Your task to perform on an android device: Is it going to rain this weekend? Image 0: 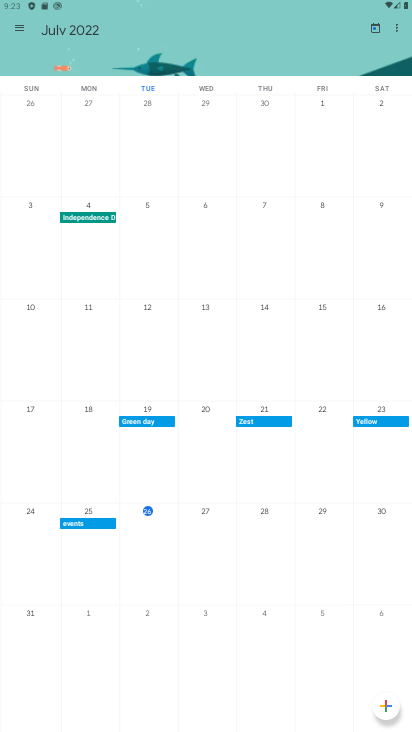
Step 0: press home button
Your task to perform on an android device: Is it going to rain this weekend? Image 1: 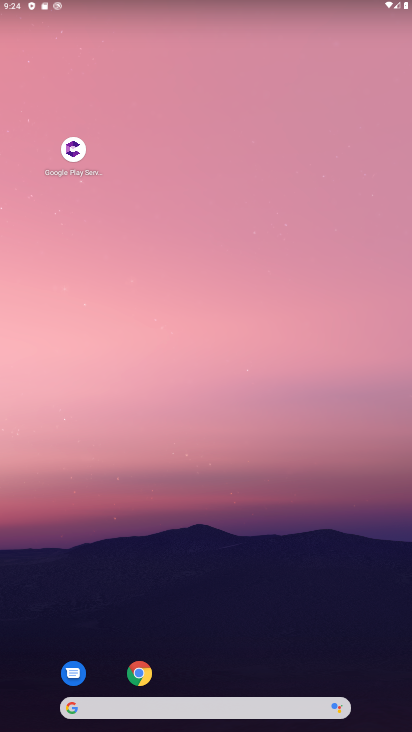
Step 1: click (147, 702)
Your task to perform on an android device: Is it going to rain this weekend? Image 2: 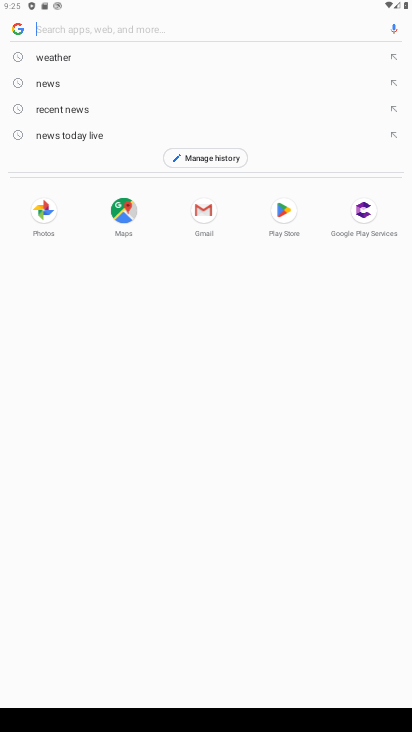
Step 2: click (33, 60)
Your task to perform on an android device: Is it going to rain this weekend? Image 3: 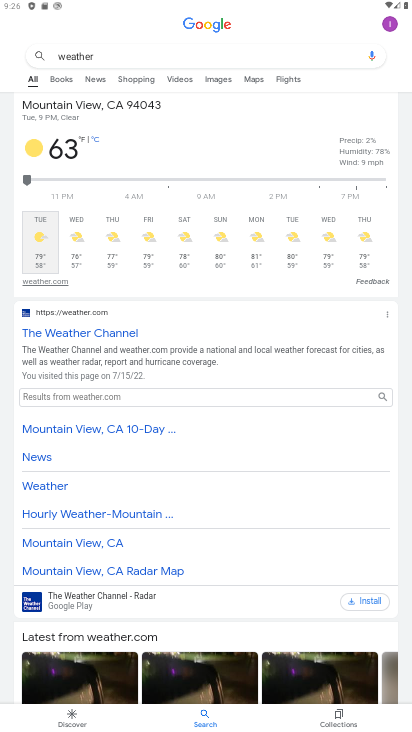
Step 3: task complete